Your task to perform on an android device: Clear all items from cart on target. Search for "razer kraken" on target, select the first entry, and add it to the cart. Image 0: 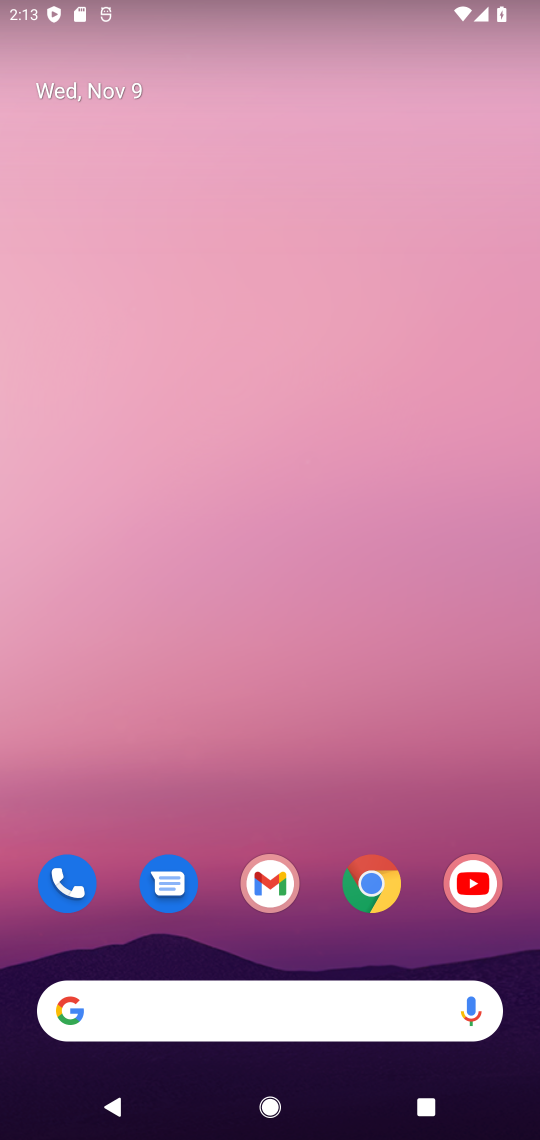
Step 0: click (370, 891)
Your task to perform on an android device: Clear all items from cart on target. Search for "razer kraken" on target, select the first entry, and add it to the cart. Image 1: 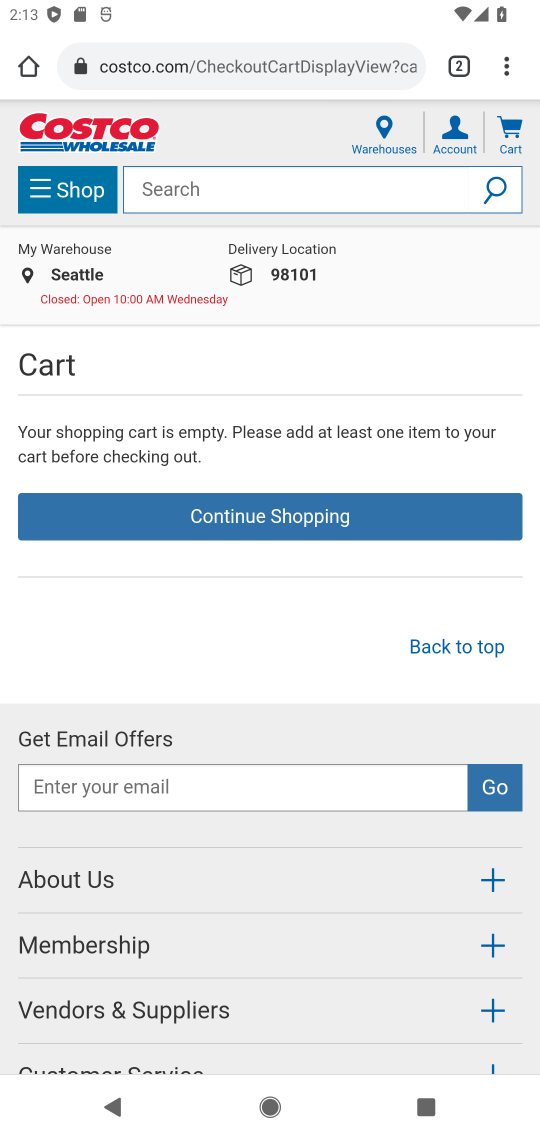
Step 1: click (450, 68)
Your task to perform on an android device: Clear all items from cart on target. Search for "razer kraken" on target, select the first entry, and add it to the cart. Image 2: 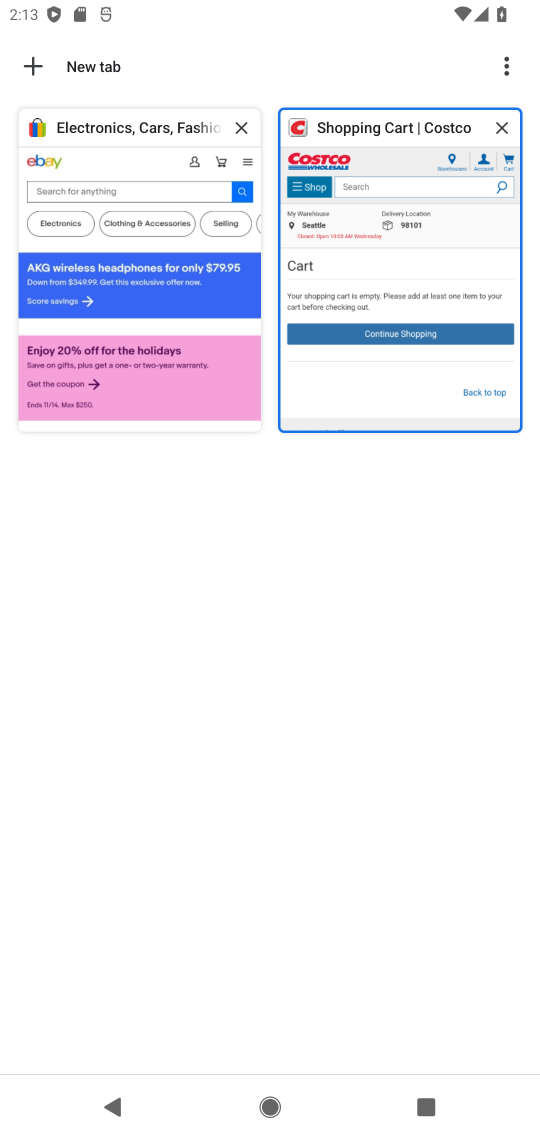
Step 2: click (37, 62)
Your task to perform on an android device: Clear all items from cart on target. Search for "razer kraken" on target, select the first entry, and add it to the cart. Image 3: 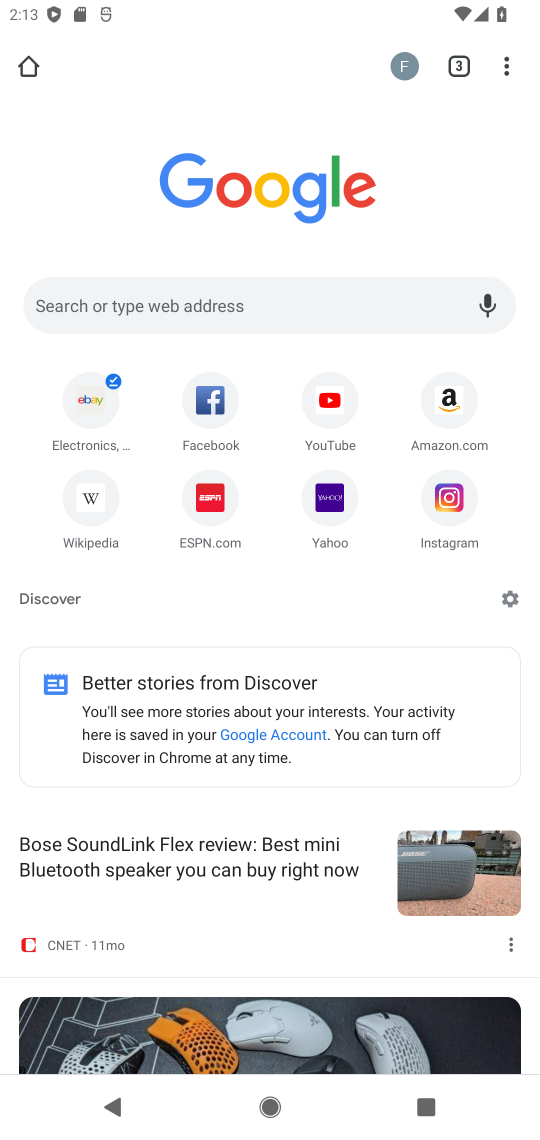
Step 3: click (164, 299)
Your task to perform on an android device: Clear all items from cart on target. Search for "razer kraken" on target, select the first entry, and add it to the cart. Image 4: 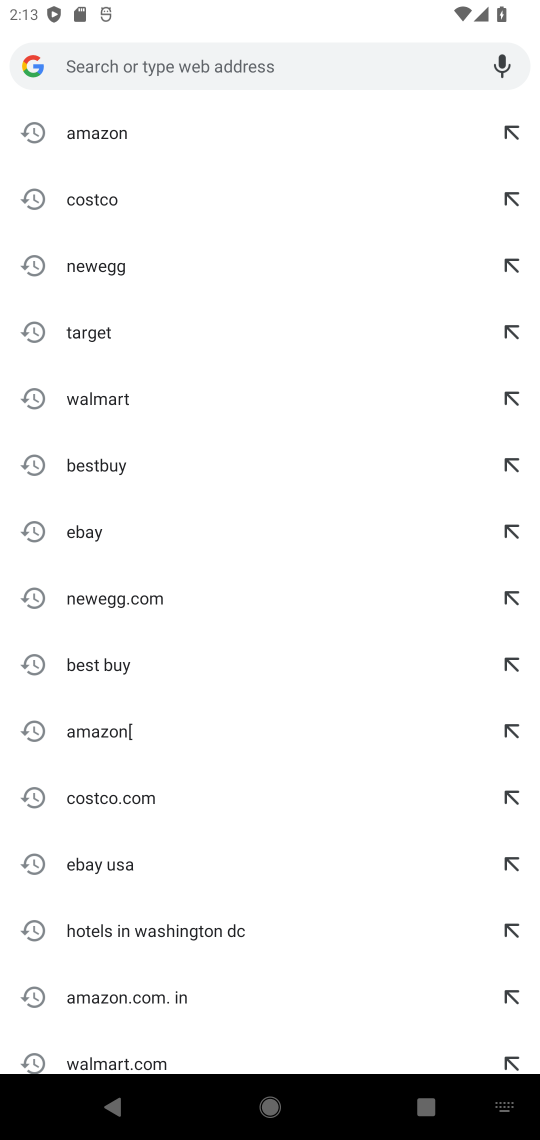
Step 4: click (82, 335)
Your task to perform on an android device: Clear all items from cart on target. Search for "razer kraken" on target, select the first entry, and add it to the cart. Image 5: 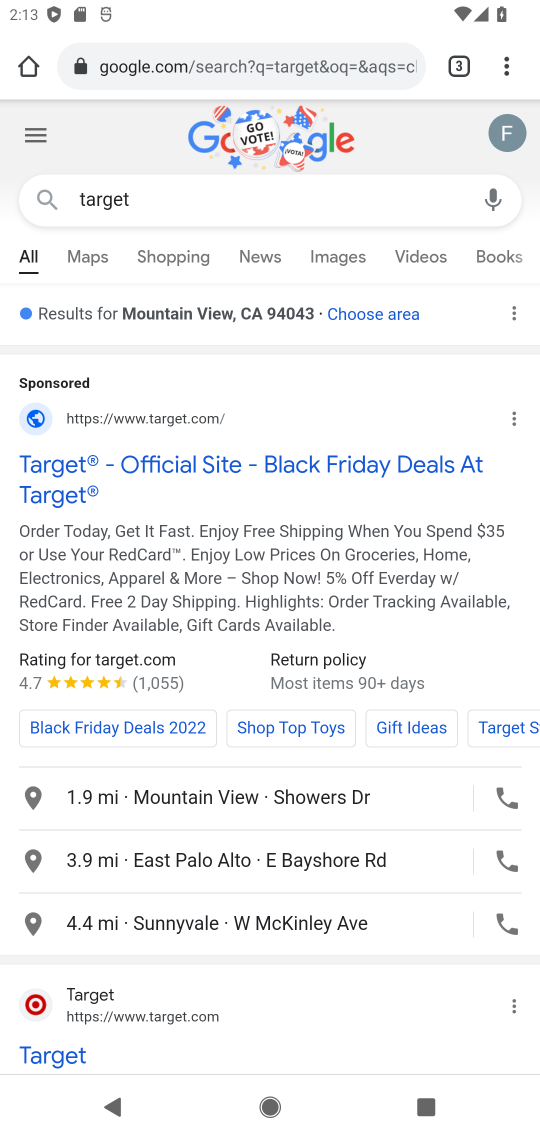
Step 5: click (51, 1057)
Your task to perform on an android device: Clear all items from cart on target. Search for "razer kraken" on target, select the first entry, and add it to the cart. Image 6: 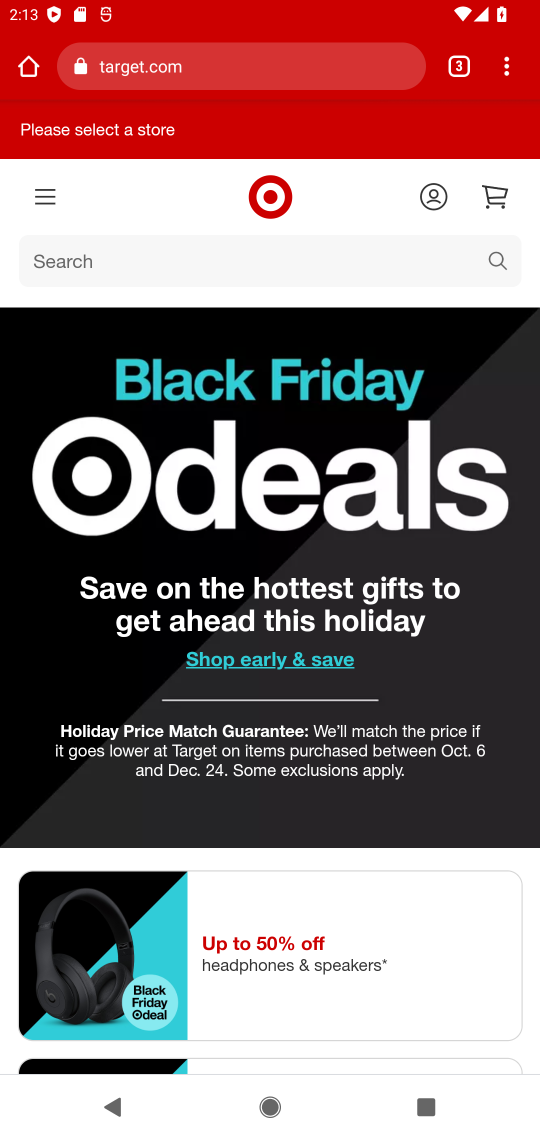
Step 6: click (72, 262)
Your task to perform on an android device: Clear all items from cart on target. Search for "razer kraken" on target, select the first entry, and add it to the cart. Image 7: 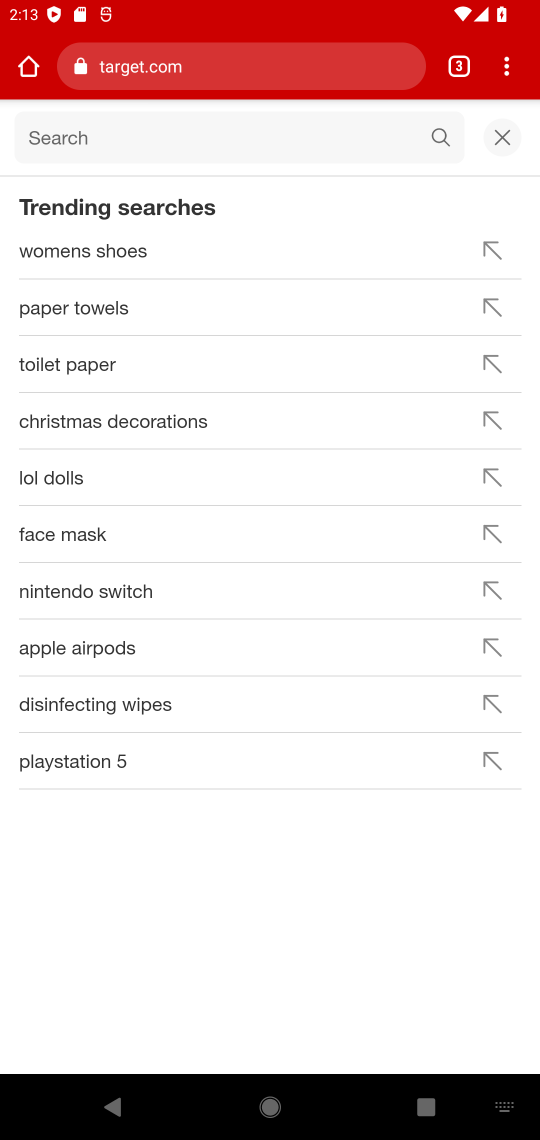
Step 7: type "razer kraken"
Your task to perform on an android device: Clear all items from cart on target. Search for "razer kraken" on target, select the first entry, and add it to the cart. Image 8: 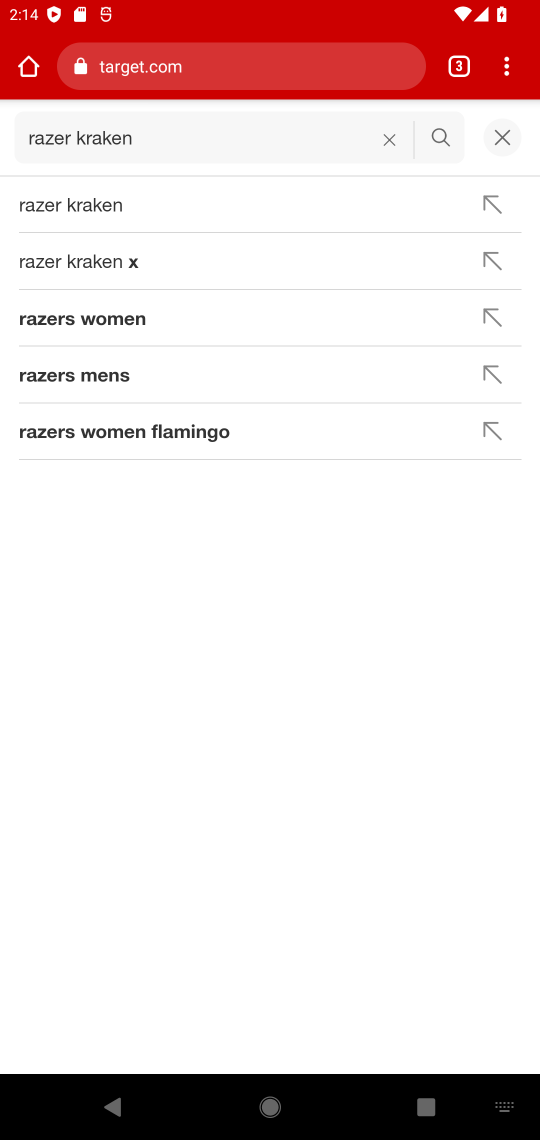
Step 8: click (58, 213)
Your task to perform on an android device: Clear all items from cart on target. Search for "razer kraken" on target, select the first entry, and add it to the cart. Image 9: 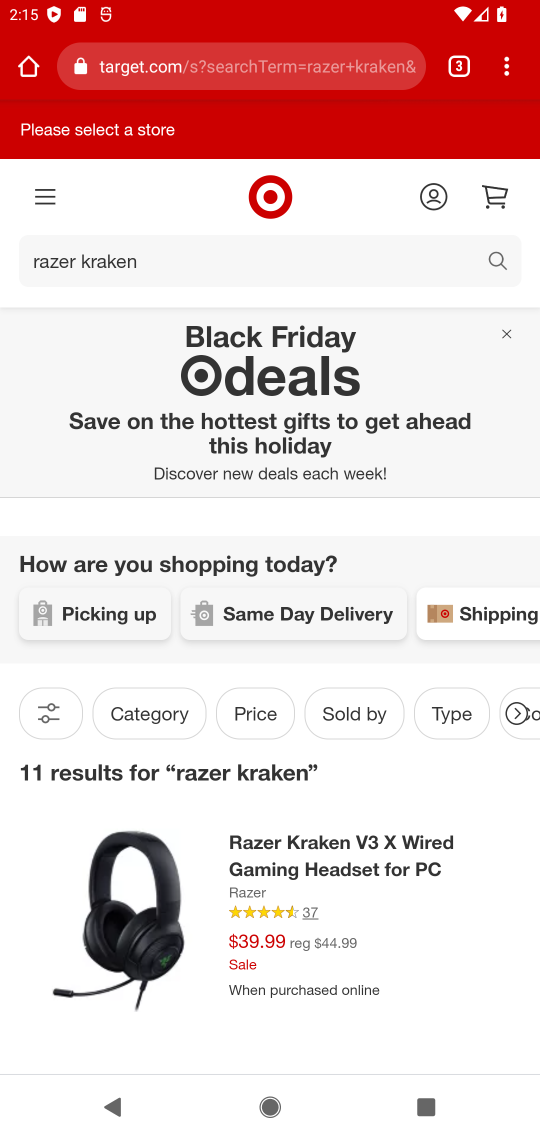
Step 9: click (330, 862)
Your task to perform on an android device: Clear all items from cart on target. Search for "razer kraken" on target, select the first entry, and add it to the cart. Image 10: 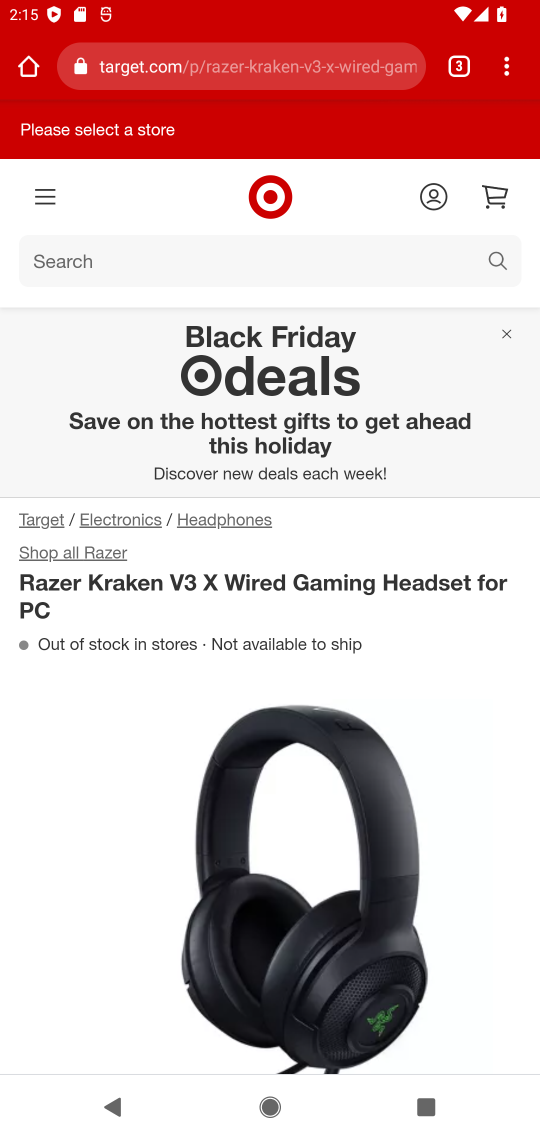
Step 10: drag from (481, 1038) to (533, 222)
Your task to perform on an android device: Clear all items from cart on target. Search for "razer kraken" on target, select the first entry, and add it to the cart. Image 11: 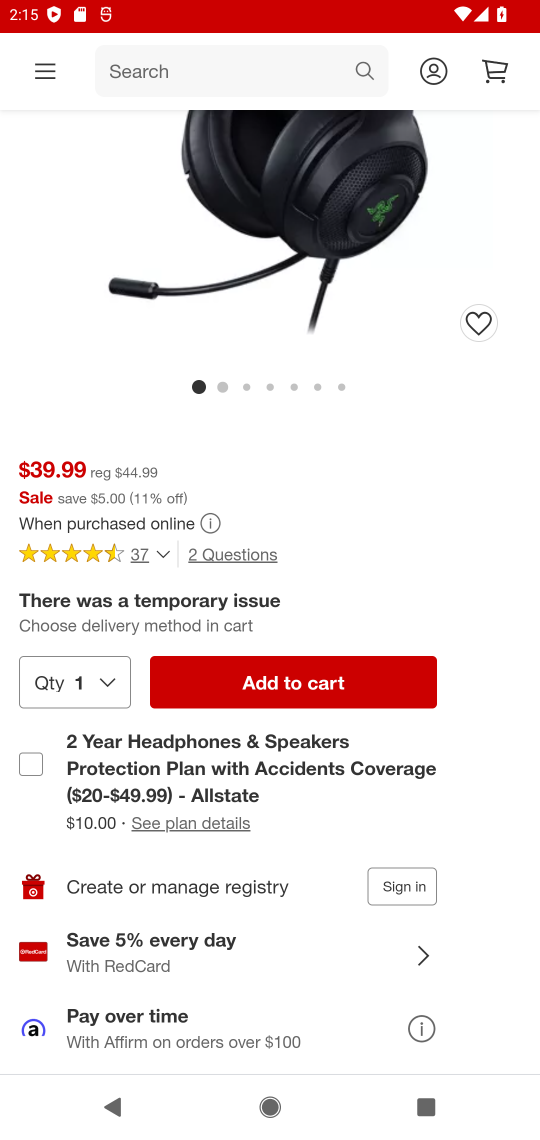
Step 11: click (289, 687)
Your task to perform on an android device: Clear all items from cart on target. Search for "razer kraken" on target, select the first entry, and add it to the cart. Image 12: 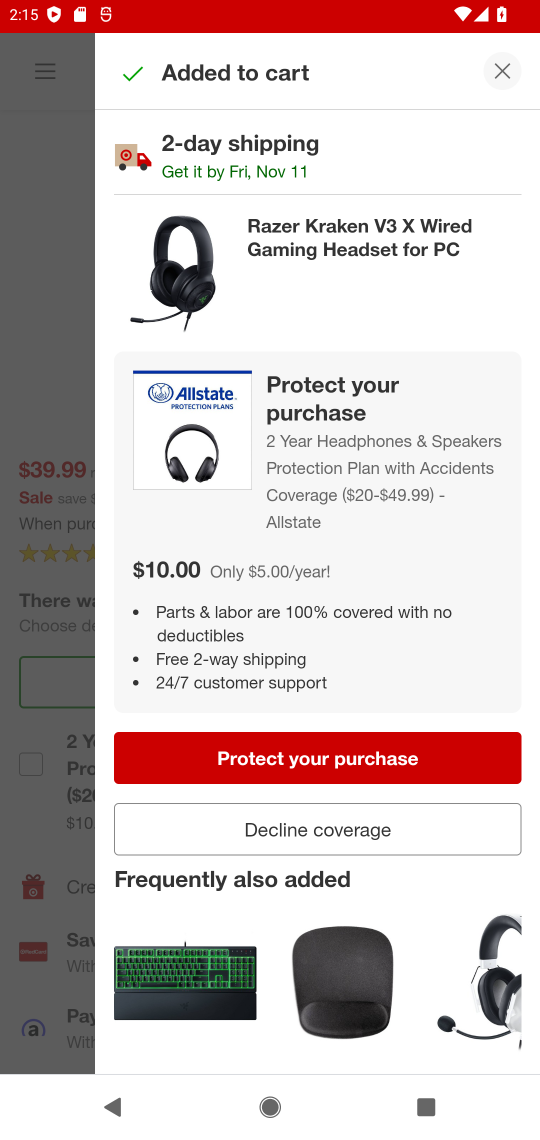
Step 12: task complete